Your task to perform on an android device: allow notifications from all sites in the chrome app Image 0: 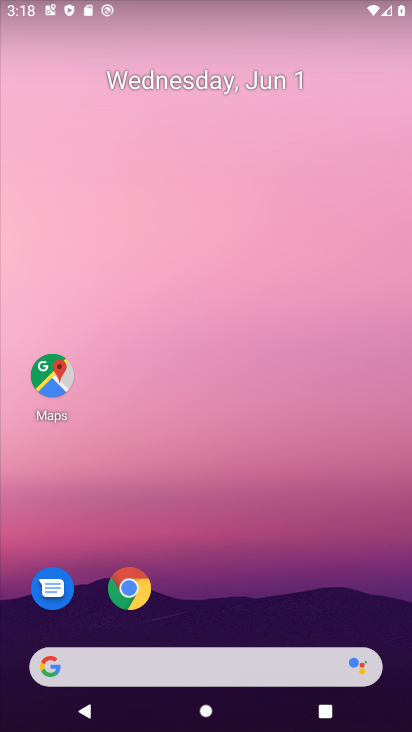
Step 0: click (132, 583)
Your task to perform on an android device: allow notifications from all sites in the chrome app Image 1: 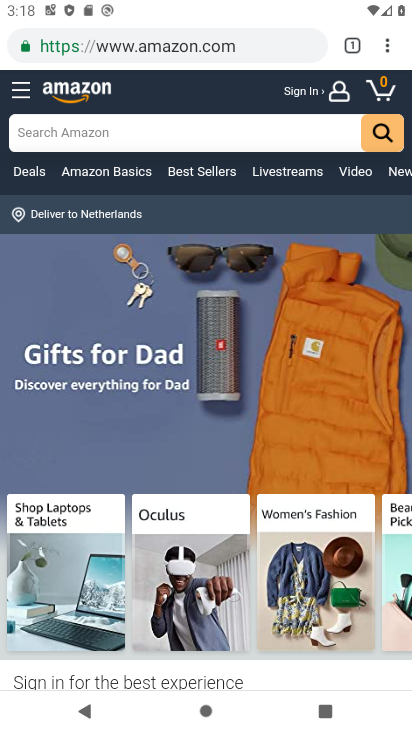
Step 1: click (385, 39)
Your task to perform on an android device: allow notifications from all sites in the chrome app Image 2: 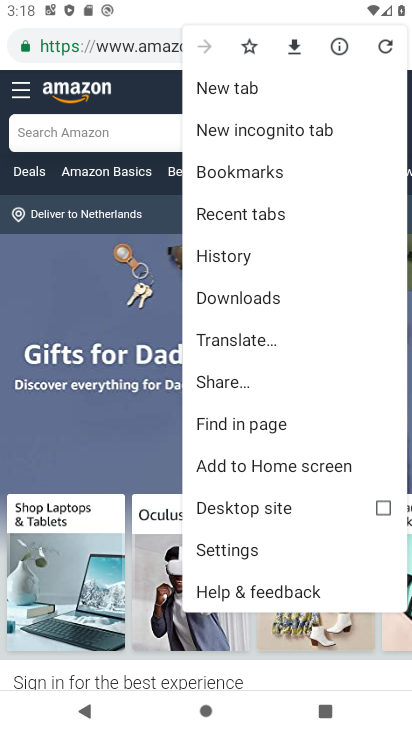
Step 2: click (257, 558)
Your task to perform on an android device: allow notifications from all sites in the chrome app Image 3: 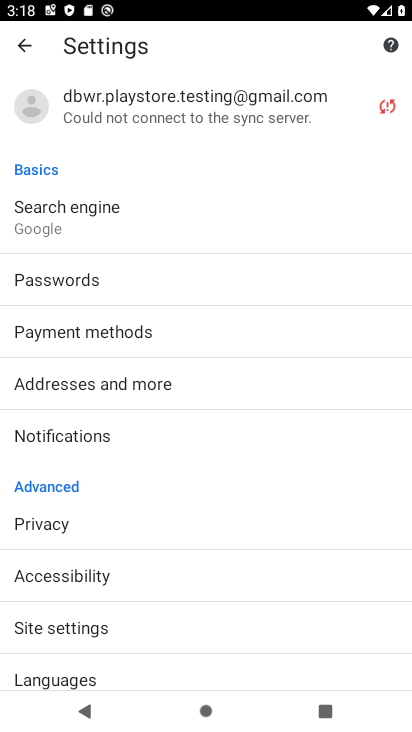
Step 3: click (112, 437)
Your task to perform on an android device: allow notifications from all sites in the chrome app Image 4: 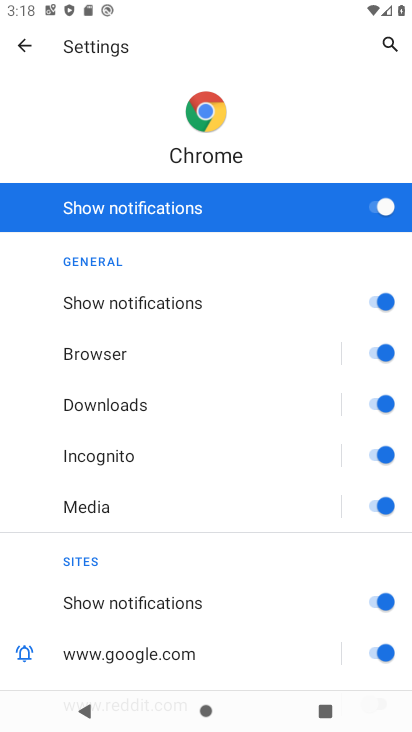
Step 4: drag from (234, 646) to (253, 417)
Your task to perform on an android device: allow notifications from all sites in the chrome app Image 5: 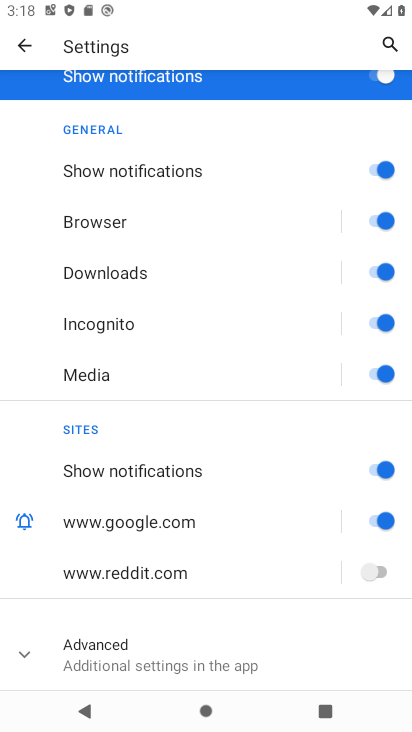
Step 5: click (377, 569)
Your task to perform on an android device: allow notifications from all sites in the chrome app Image 6: 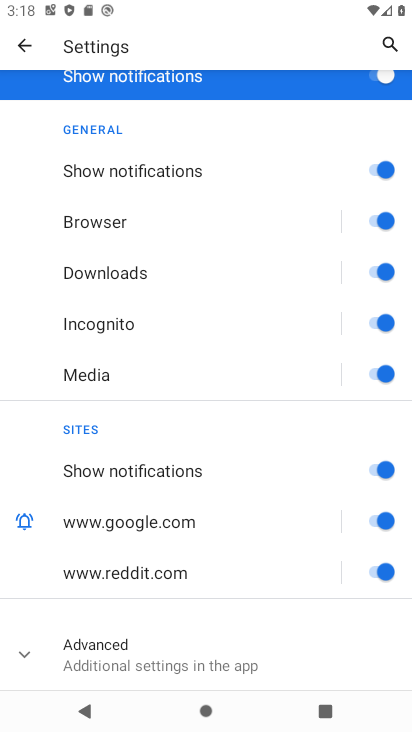
Step 6: task complete